Your task to perform on an android device: remove spam from my inbox in the gmail app Image 0: 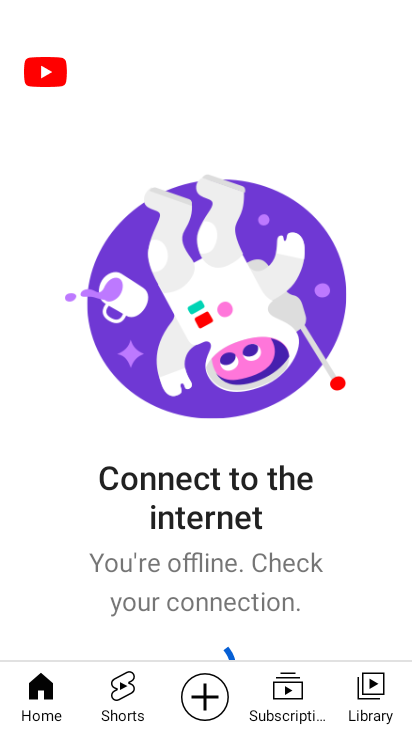
Step 0: click (259, 82)
Your task to perform on an android device: remove spam from my inbox in the gmail app Image 1: 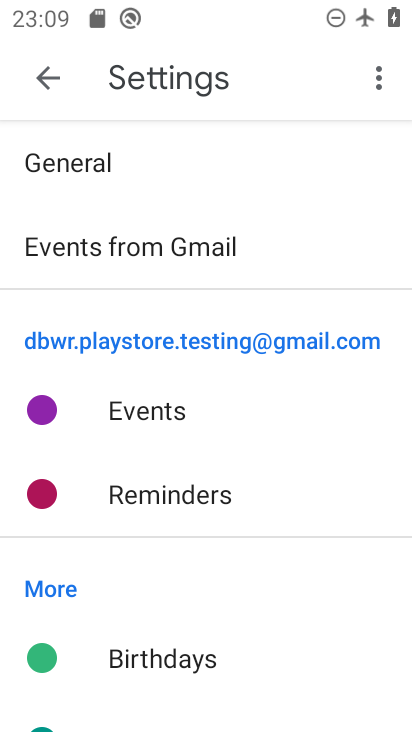
Step 1: drag from (170, 604) to (216, 257)
Your task to perform on an android device: remove spam from my inbox in the gmail app Image 2: 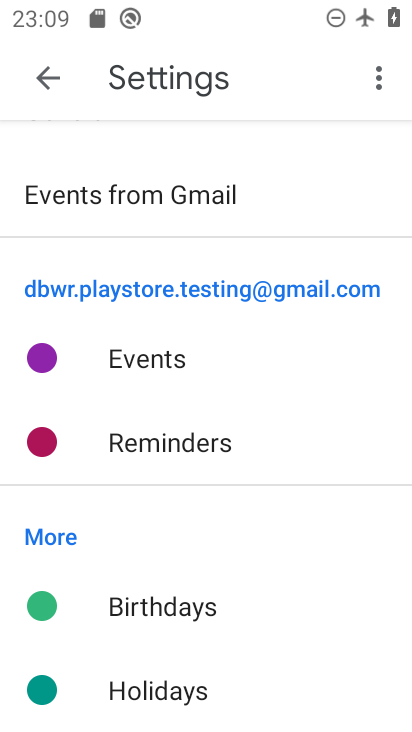
Step 2: press back button
Your task to perform on an android device: remove spam from my inbox in the gmail app Image 3: 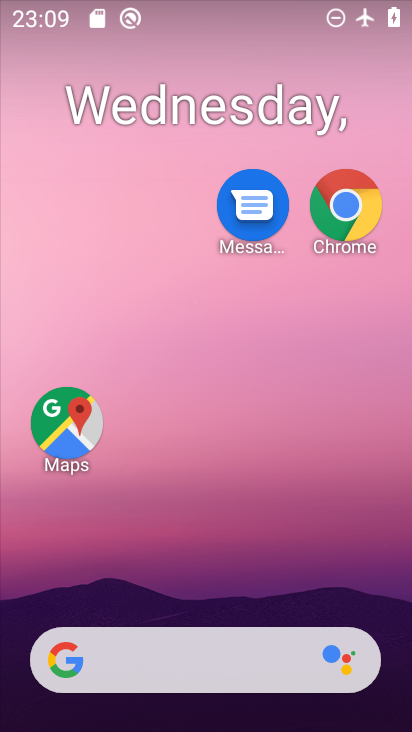
Step 3: drag from (177, 552) to (218, 141)
Your task to perform on an android device: remove spam from my inbox in the gmail app Image 4: 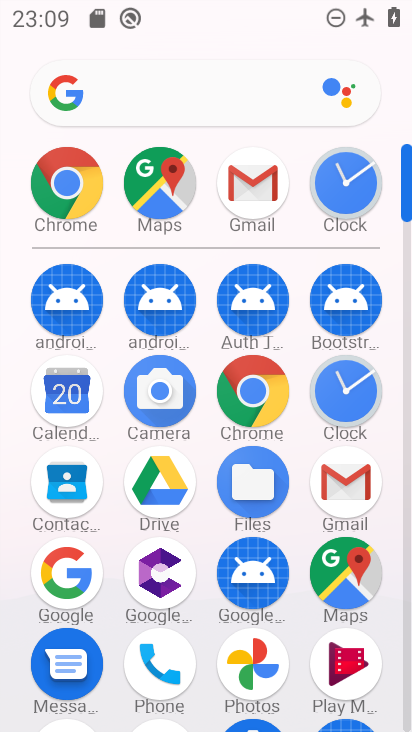
Step 4: drag from (194, 631) to (224, 200)
Your task to perform on an android device: remove spam from my inbox in the gmail app Image 5: 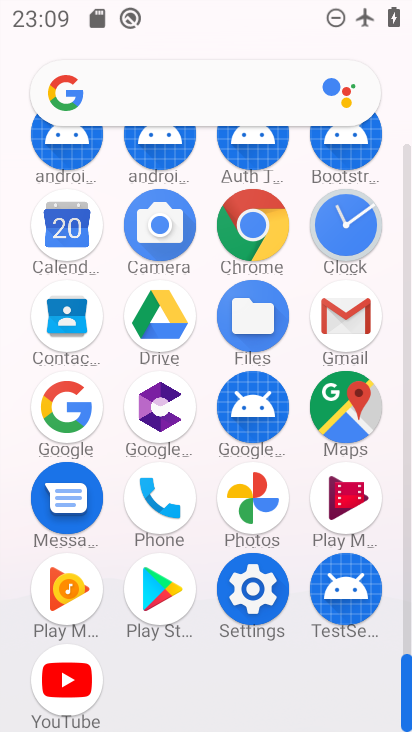
Step 5: click (258, 597)
Your task to perform on an android device: remove spam from my inbox in the gmail app Image 6: 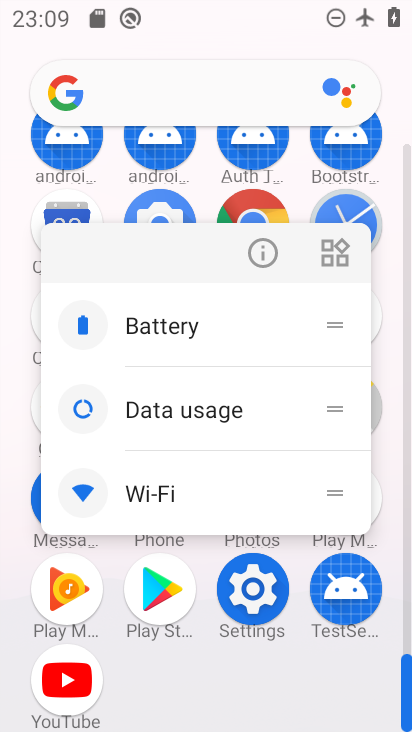
Step 6: click (382, 339)
Your task to perform on an android device: remove spam from my inbox in the gmail app Image 7: 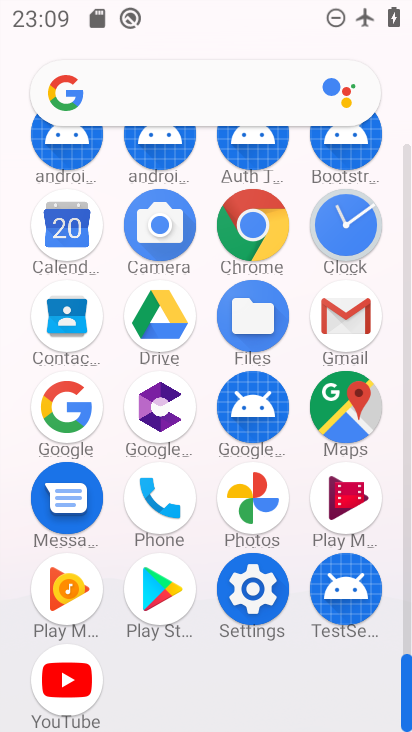
Step 7: click (357, 333)
Your task to perform on an android device: remove spam from my inbox in the gmail app Image 8: 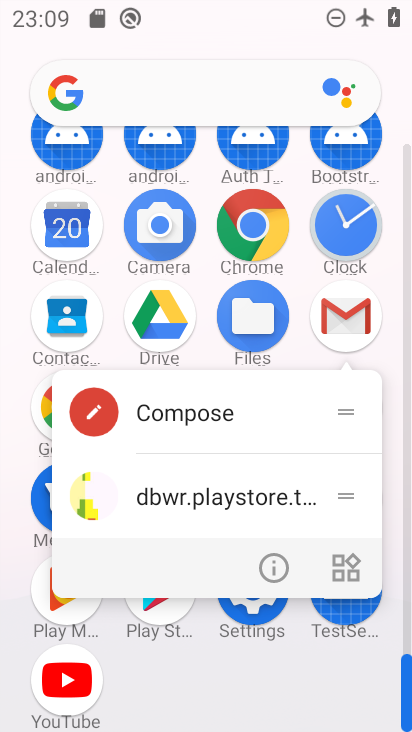
Step 8: click (271, 560)
Your task to perform on an android device: remove spam from my inbox in the gmail app Image 9: 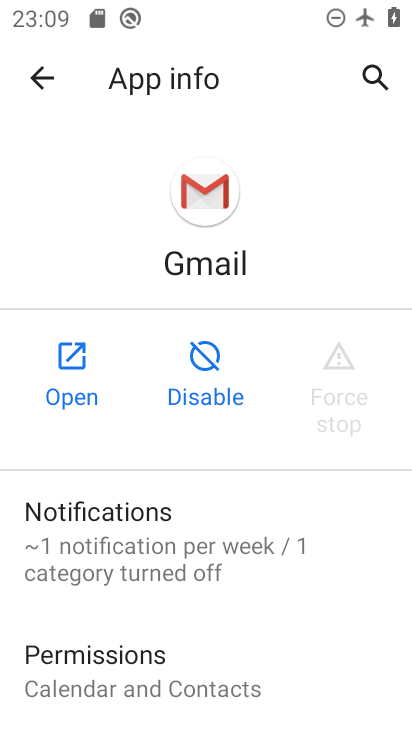
Step 9: click (78, 360)
Your task to perform on an android device: remove spam from my inbox in the gmail app Image 10: 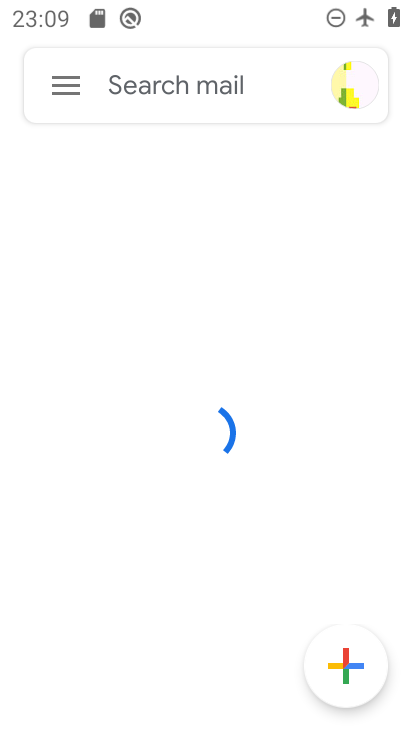
Step 10: click (46, 43)
Your task to perform on an android device: remove spam from my inbox in the gmail app Image 11: 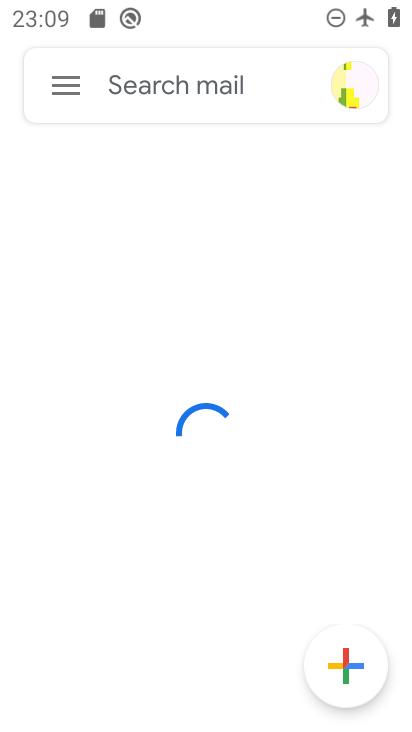
Step 11: click (61, 66)
Your task to perform on an android device: remove spam from my inbox in the gmail app Image 12: 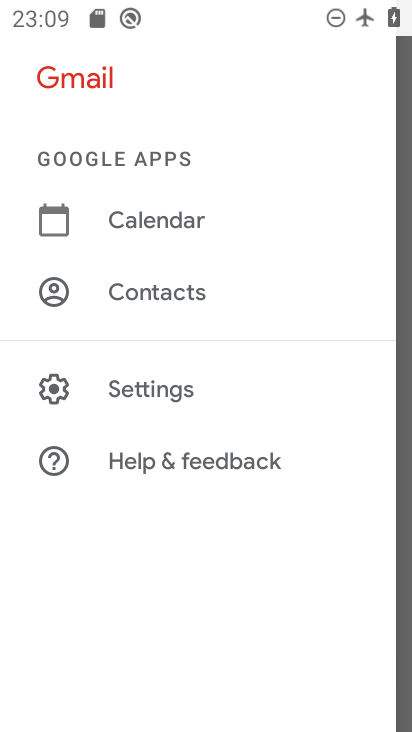
Step 12: drag from (172, 378) to (227, 694)
Your task to perform on an android device: remove spam from my inbox in the gmail app Image 13: 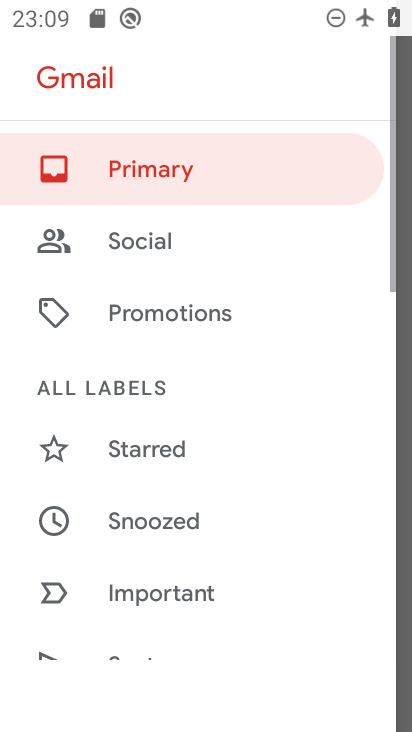
Step 13: drag from (199, 557) to (259, 45)
Your task to perform on an android device: remove spam from my inbox in the gmail app Image 14: 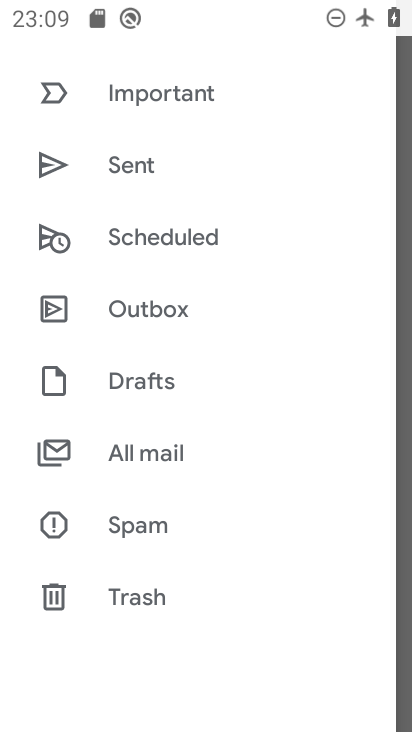
Step 14: click (176, 522)
Your task to perform on an android device: remove spam from my inbox in the gmail app Image 15: 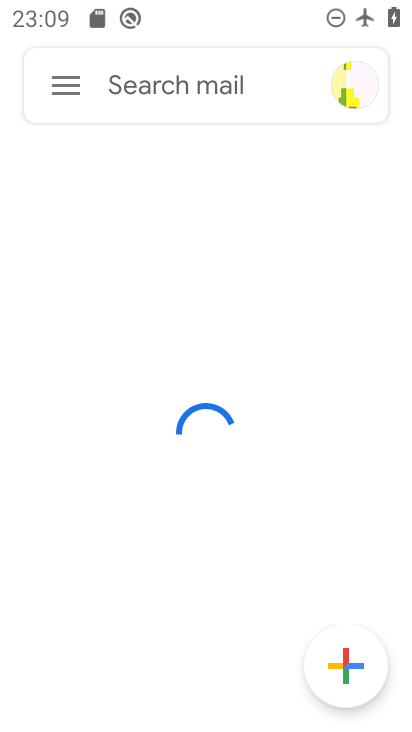
Step 15: drag from (248, 610) to (228, 203)
Your task to perform on an android device: remove spam from my inbox in the gmail app Image 16: 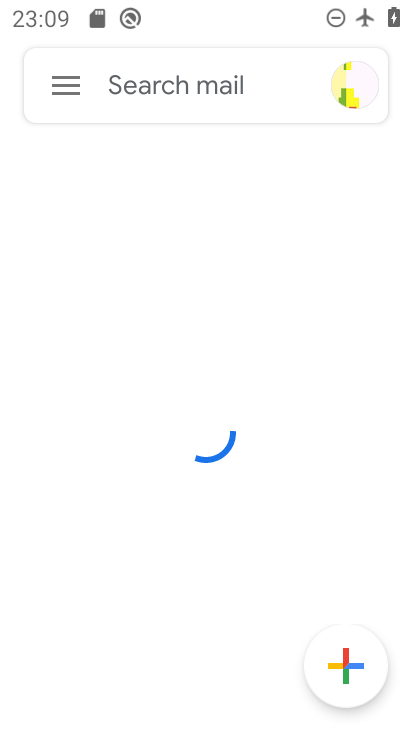
Step 16: drag from (240, 178) to (311, 581)
Your task to perform on an android device: remove spam from my inbox in the gmail app Image 17: 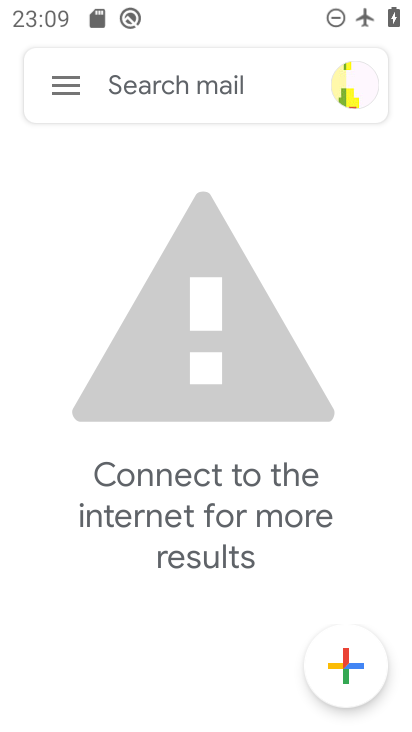
Step 17: drag from (234, 319) to (290, 561)
Your task to perform on an android device: remove spam from my inbox in the gmail app Image 18: 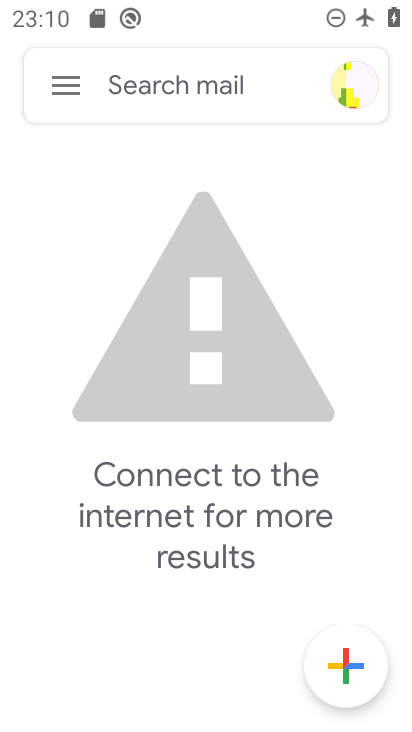
Step 18: drag from (144, 636) to (163, 283)
Your task to perform on an android device: remove spam from my inbox in the gmail app Image 19: 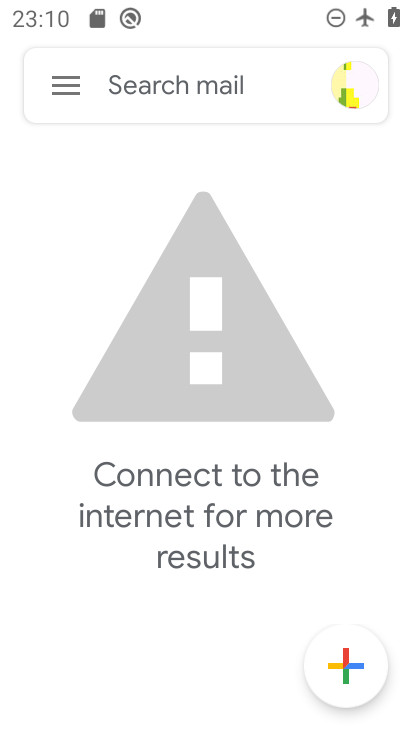
Step 19: click (67, 80)
Your task to perform on an android device: remove spam from my inbox in the gmail app Image 20: 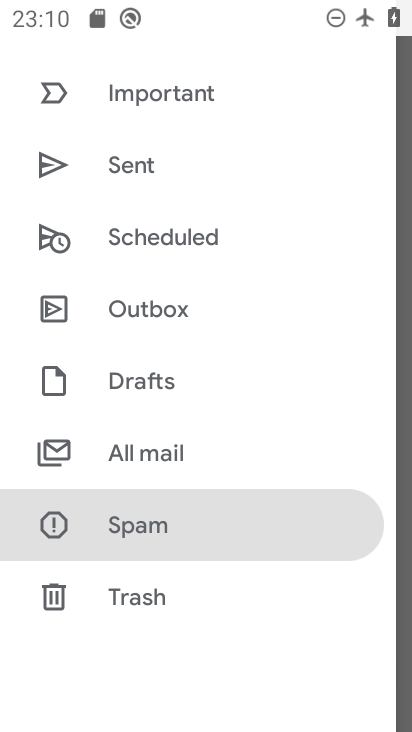
Step 20: task complete